Your task to perform on an android device: turn off priority inbox in the gmail app Image 0: 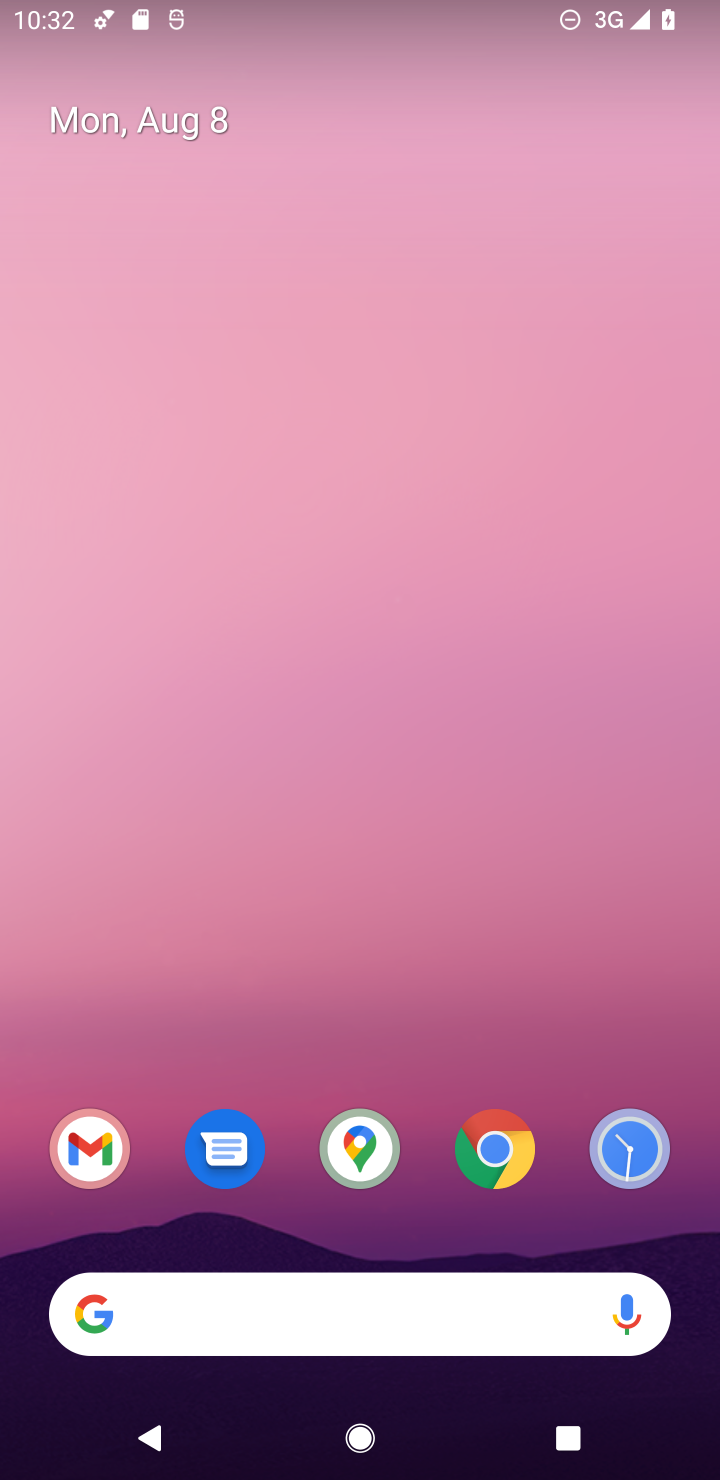
Step 0: drag from (419, 1002) to (419, 696)
Your task to perform on an android device: turn off priority inbox in the gmail app Image 1: 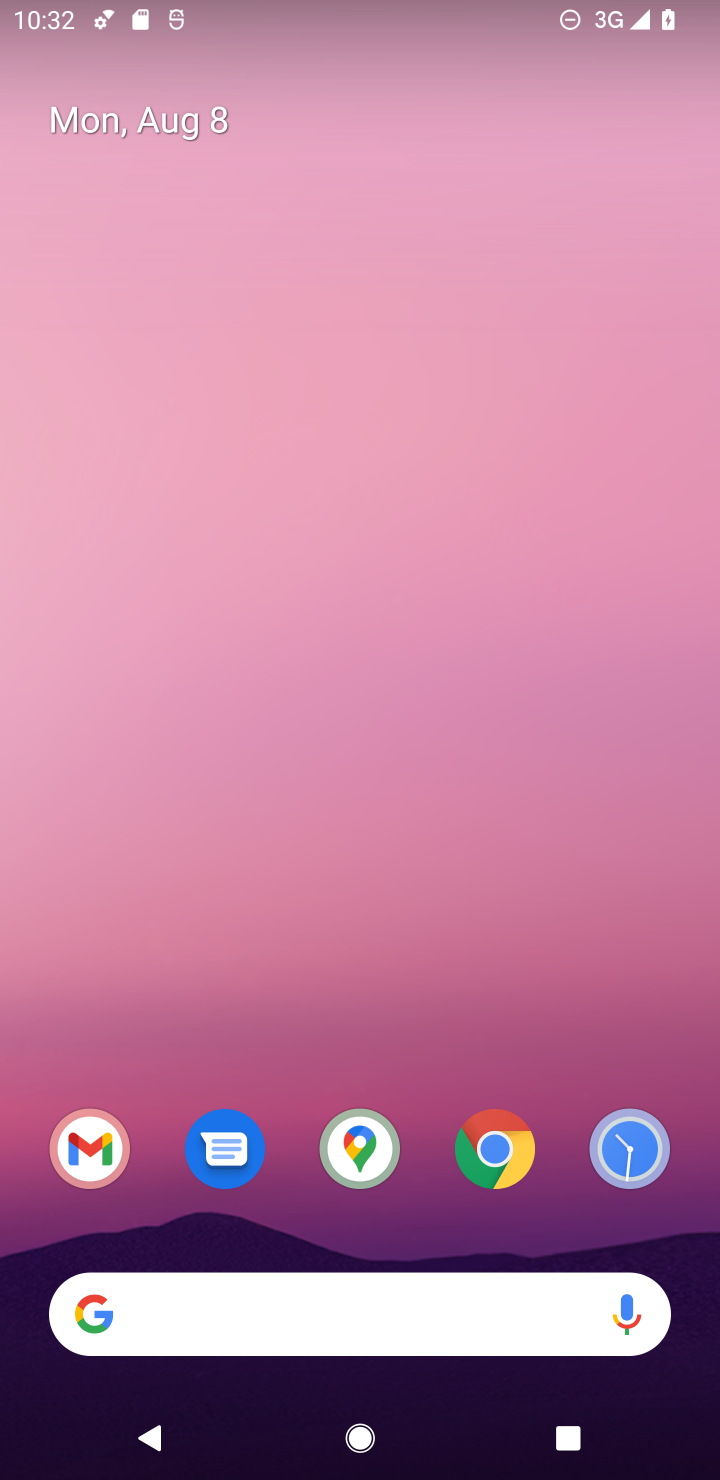
Step 1: click (89, 1158)
Your task to perform on an android device: turn off priority inbox in the gmail app Image 2: 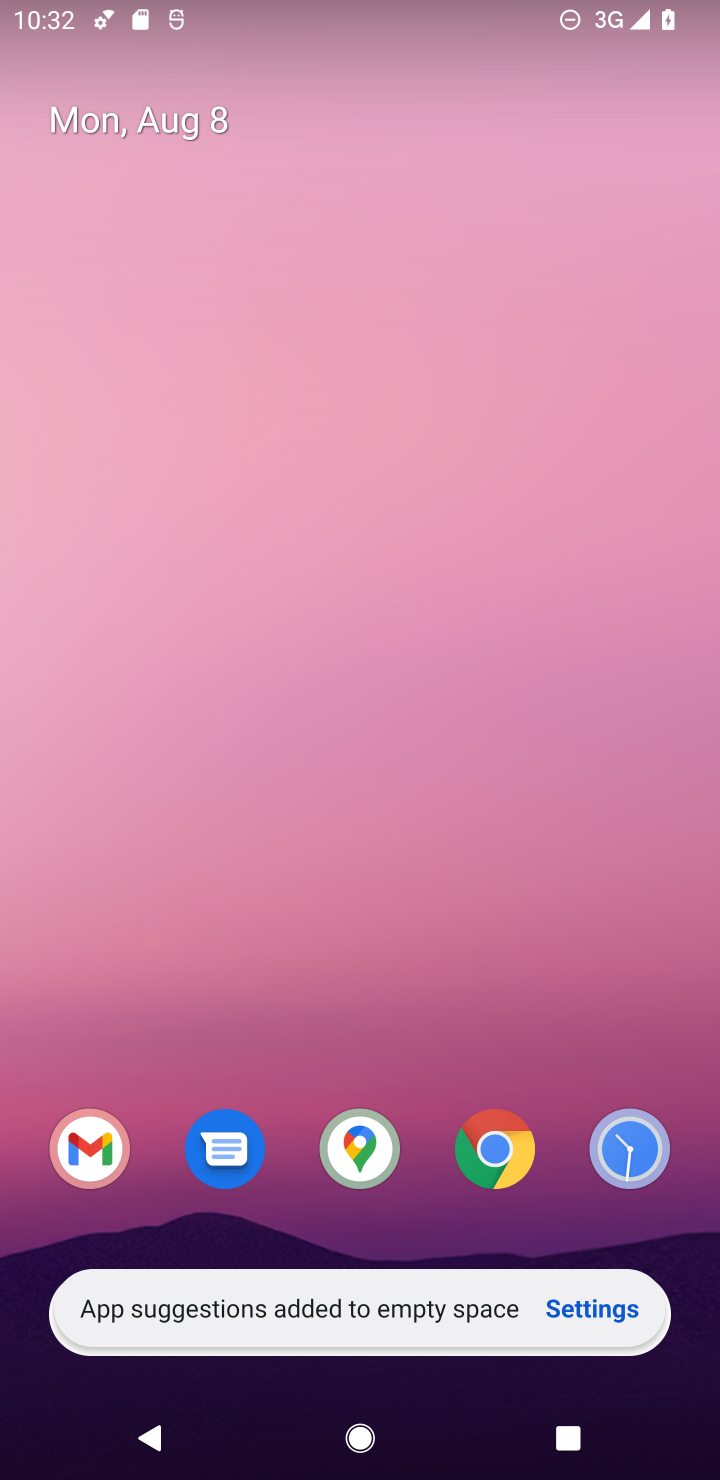
Step 2: click (80, 1172)
Your task to perform on an android device: turn off priority inbox in the gmail app Image 3: 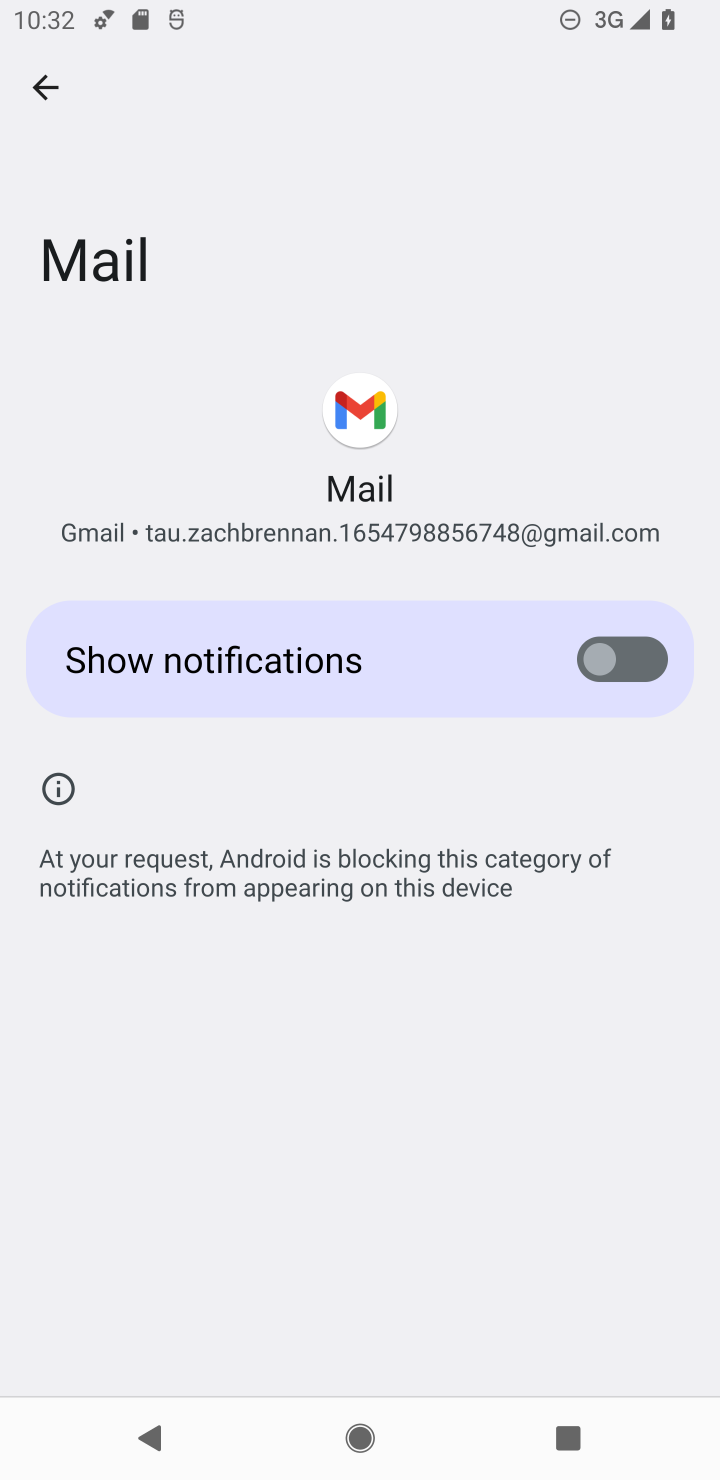
Step 3: click (42, 92)
Your task to perform on an android device: turn off priority inbox in the gmail app Image 4: 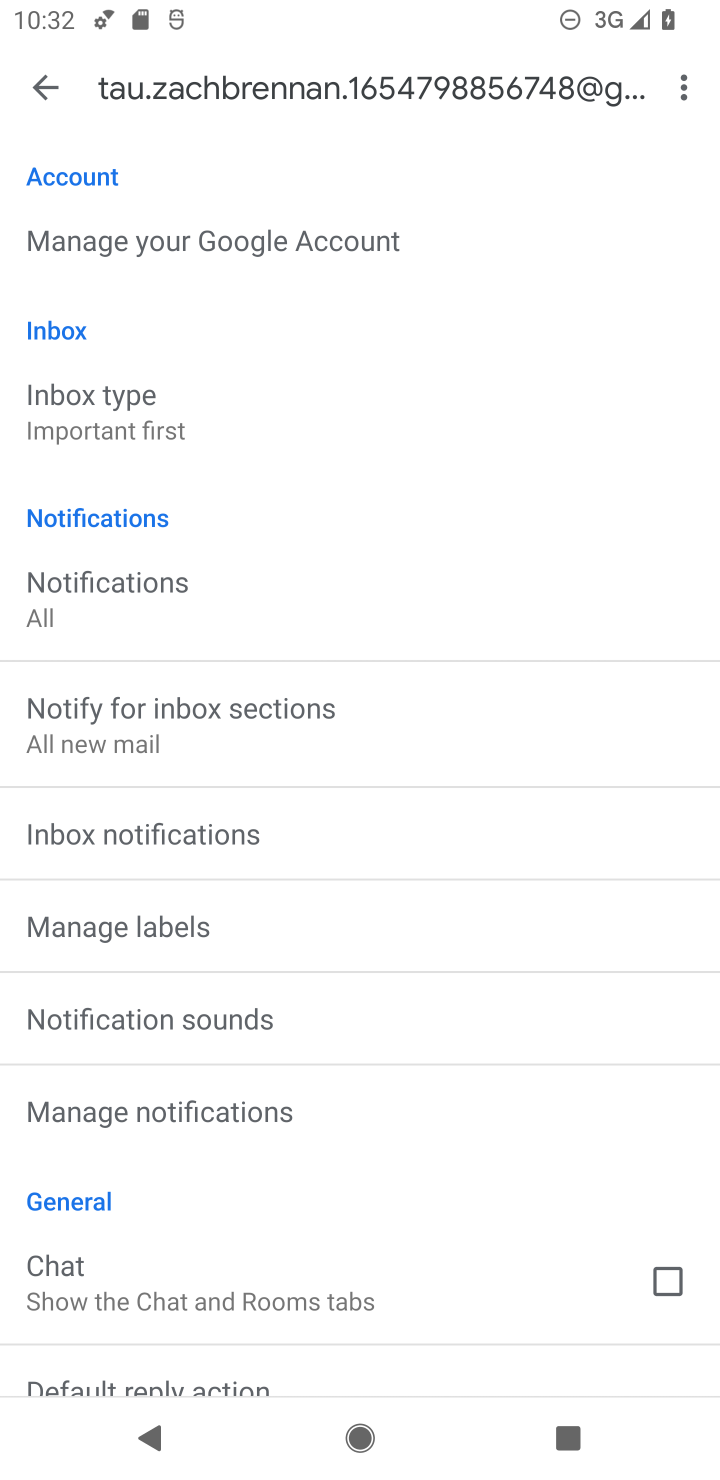
Step 4: click (69, 420)
Your task to perform on an android device: turn off priority inbox in the gmail app Image 5: 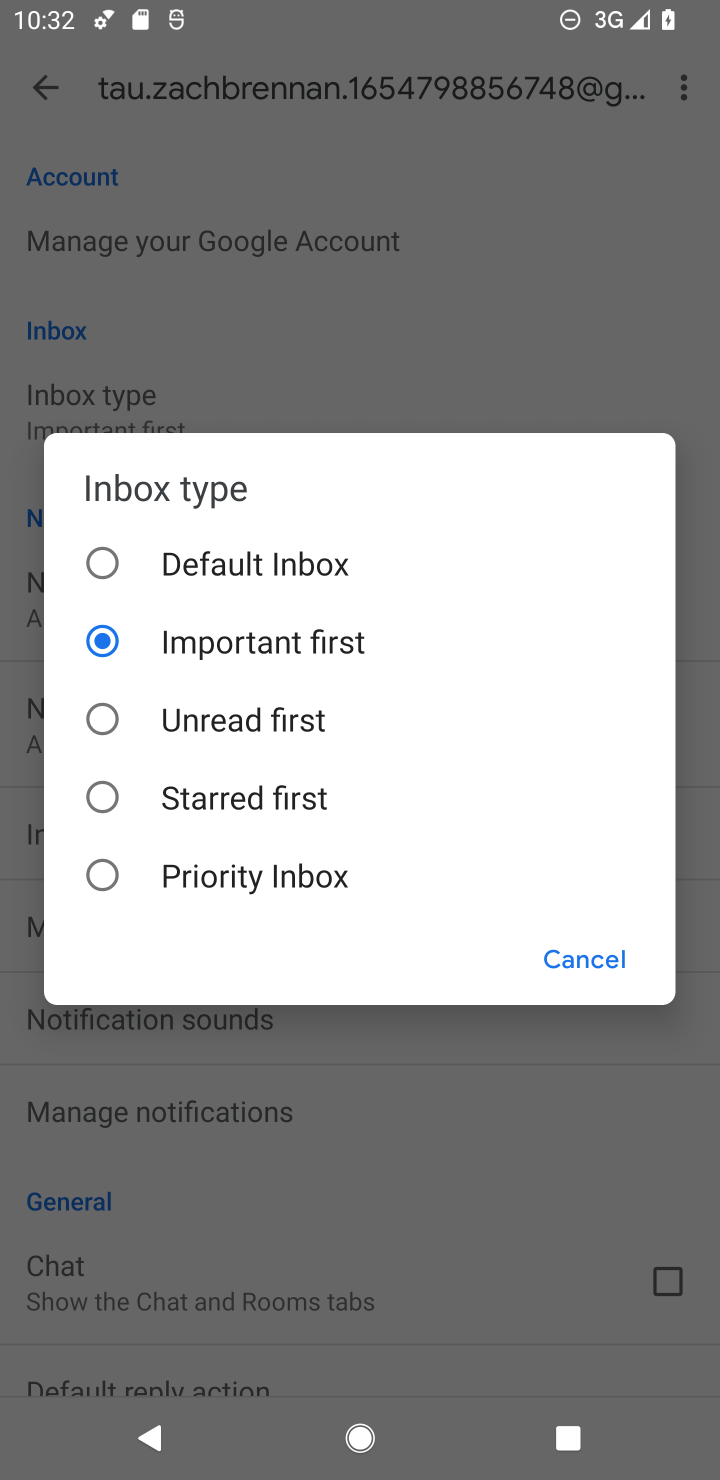
Step 5: click (201, 864)
Your task to perform on an android device: turn off priority inbox in the gmail app Image 6: 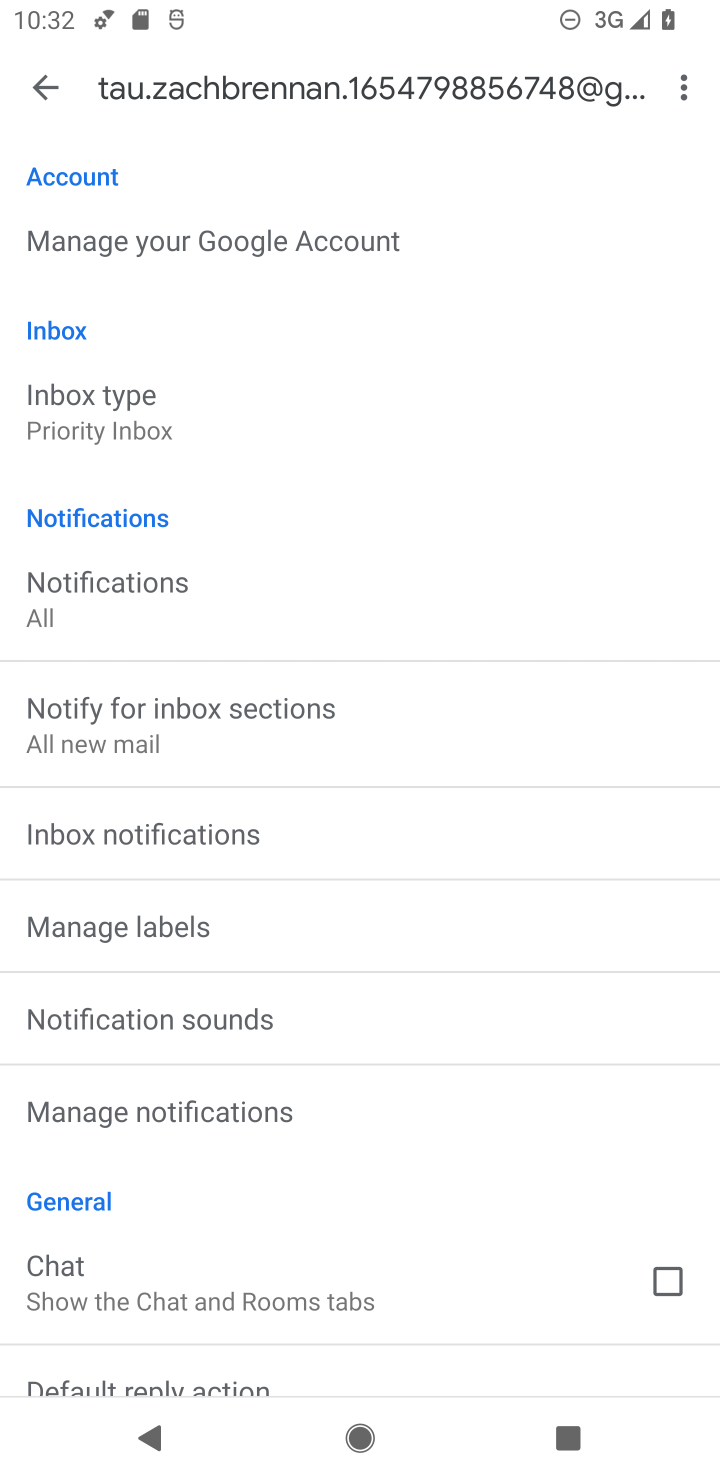
Step 6: task complete